Your task to perform on an android device: Add razer blade to the cart on newegg, then select checkout. Image 0: 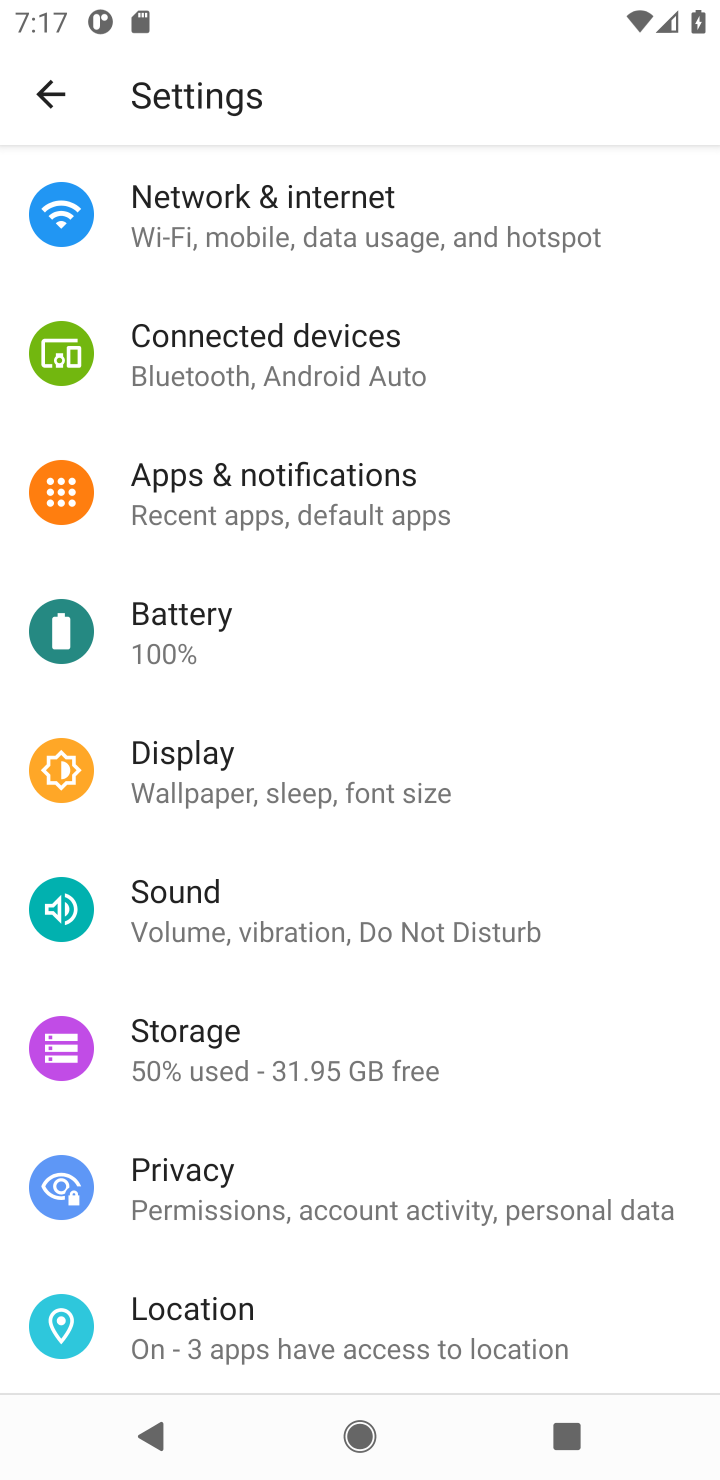
Step 0: press home button
Your task to perform on an android device: Add razer blade to the cart on newegg, then select checkout. Image 1: 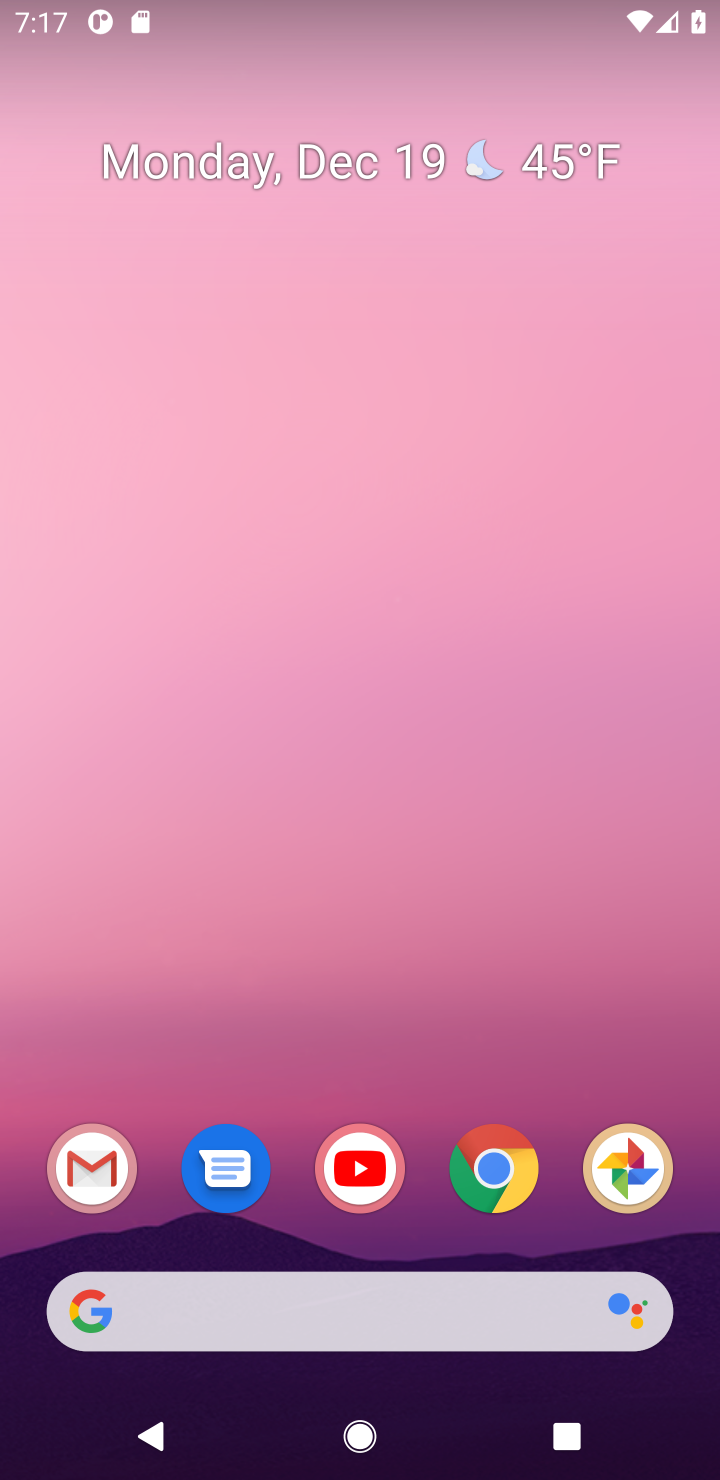
Step 1: click (486, 1181)
Your task to perform on an android device: Add razer blade to the cart on newegg, then select checkout. Image 2: 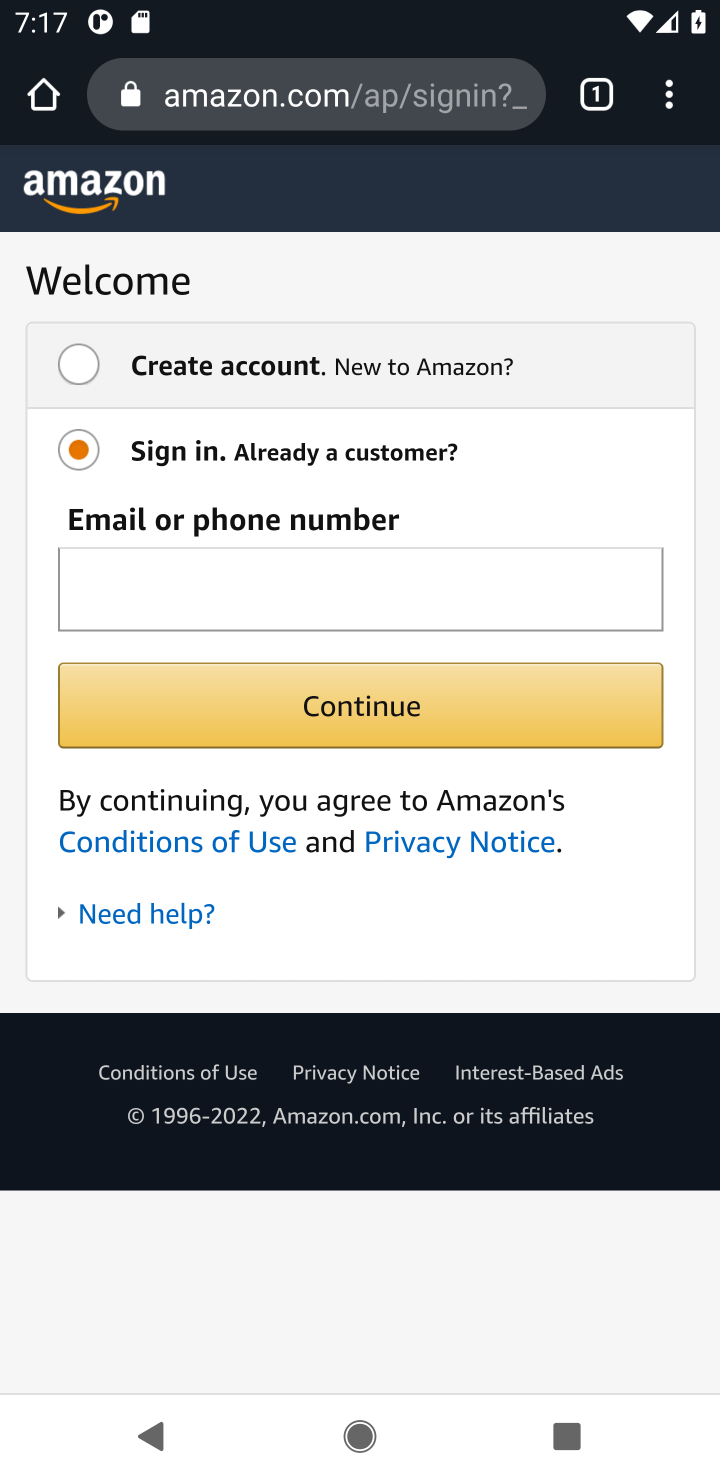
Step 2: click (254, 114)
Your task to perform on an android device: Add razer blade to the cart on newegg, then select checkout. Image 3: 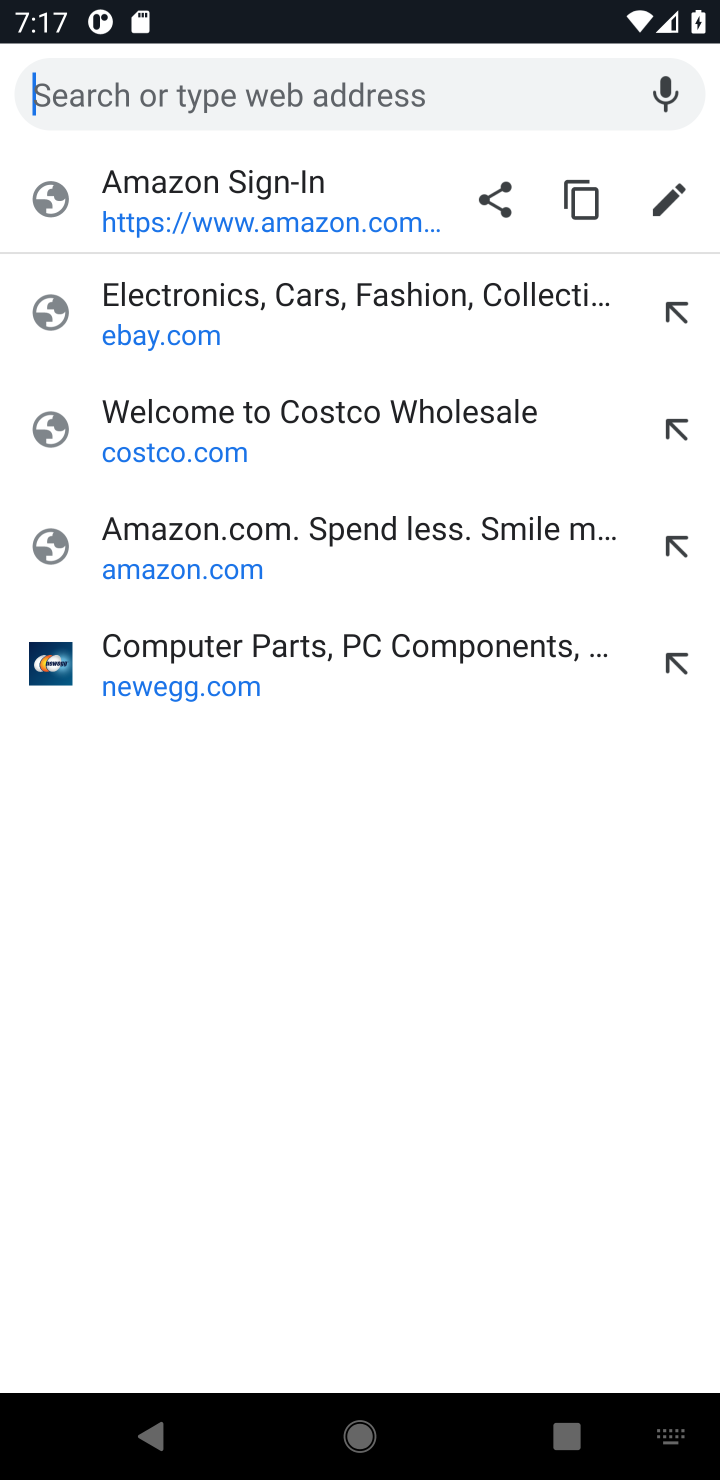
Step 3: click (156, 670)
Your task to perform on an android device: Add razer blade to the cart on newegg, then select checkout. Image 4: 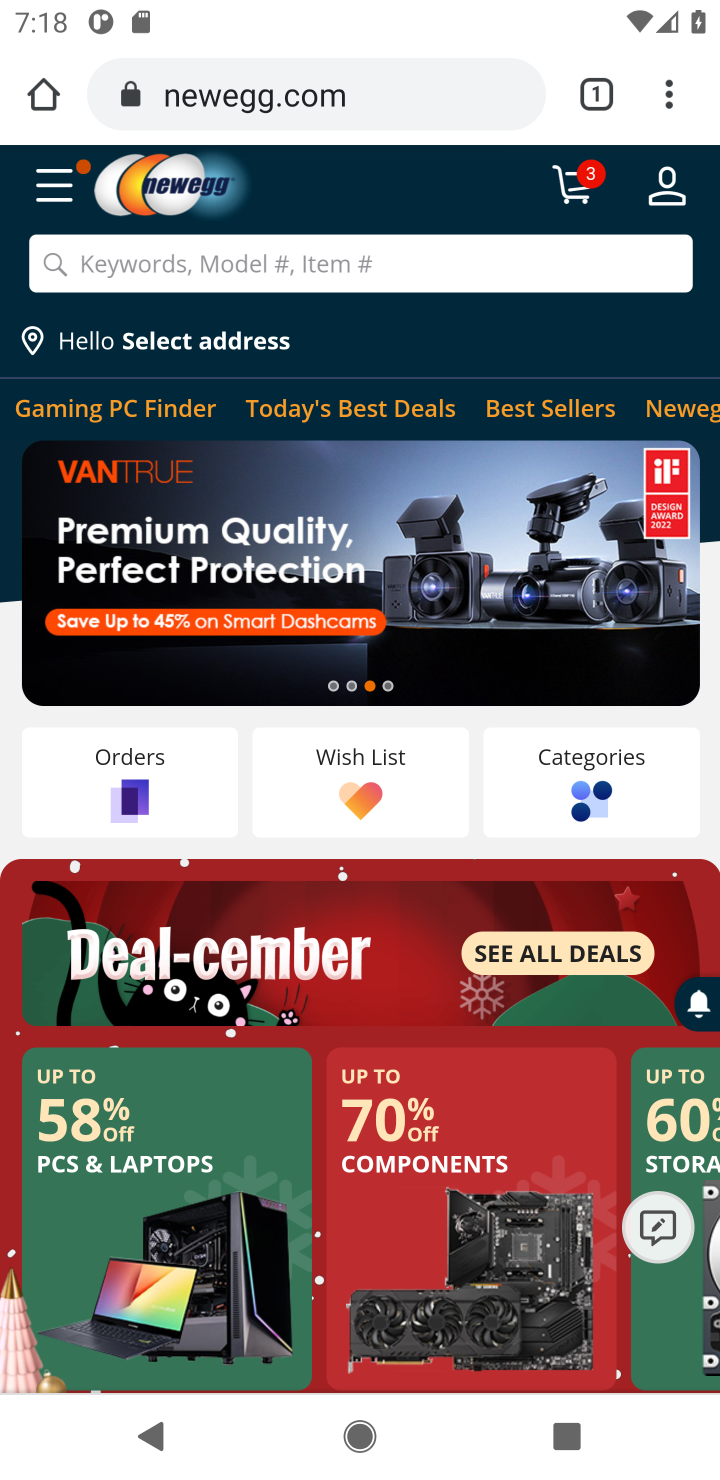
Step 4: click (111, 258)
Your task to perform on an android device: Add razer blade to the cart on newegg, then select checkout. Image 5: 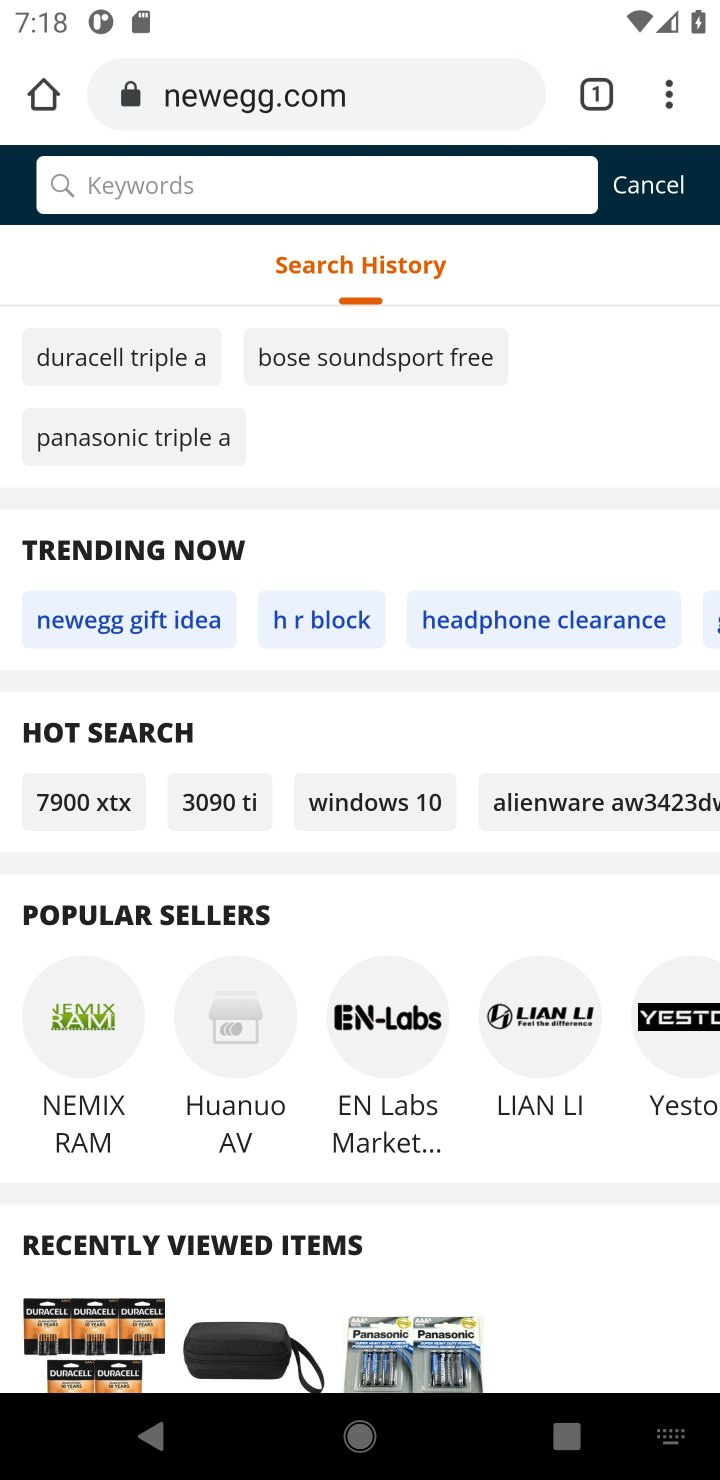
Step 5: type " razer blade"
Your task to perform on an android device: Add razer blade to the cart on newegg, then select checkout. Image 6: 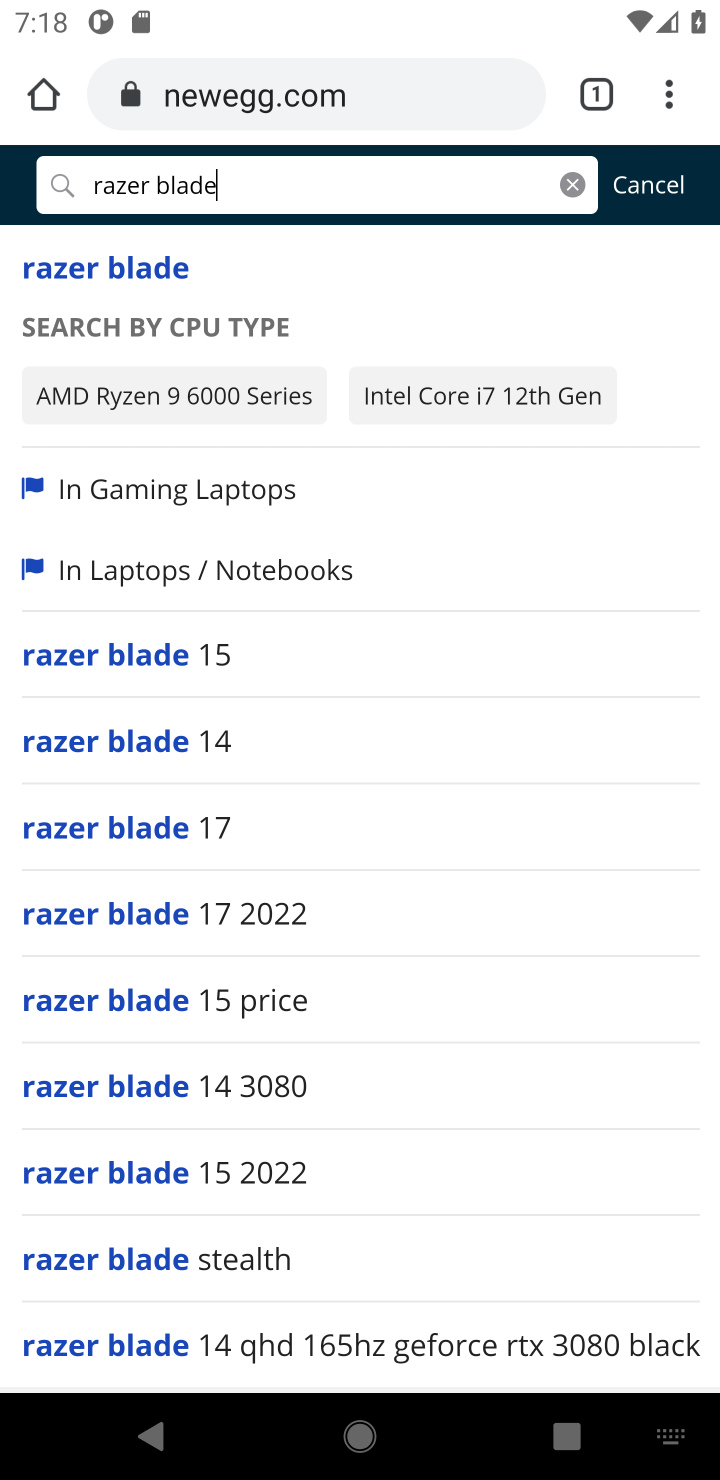
Step 6: click (131, 269)
Your task to perform on an android device: Add razer blade to the cart on newegg, then select checkout. Image 7: 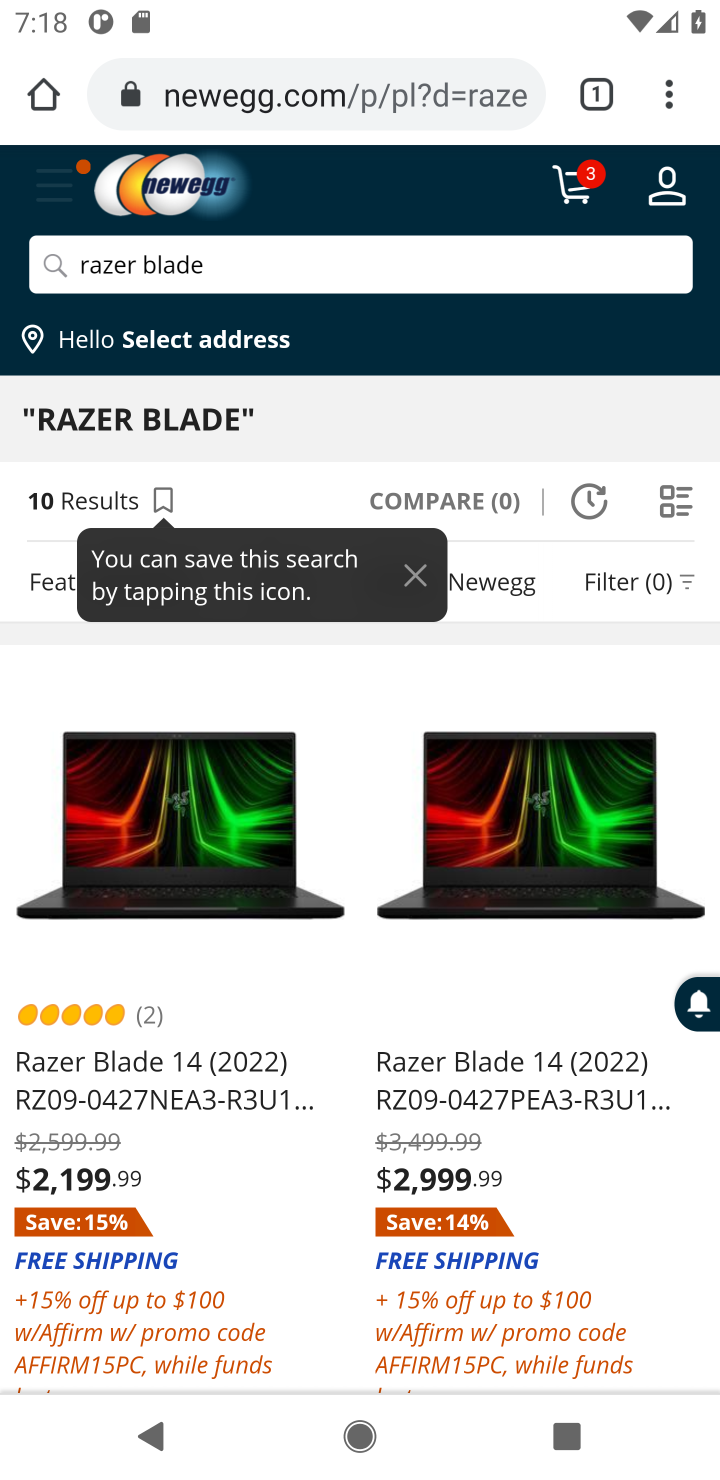
Step 7: drag from (120, 1076) to (197, 750)
Your task to perform on an android device: Add razer blade to the cart on newegg, then select checkout. Image 8: 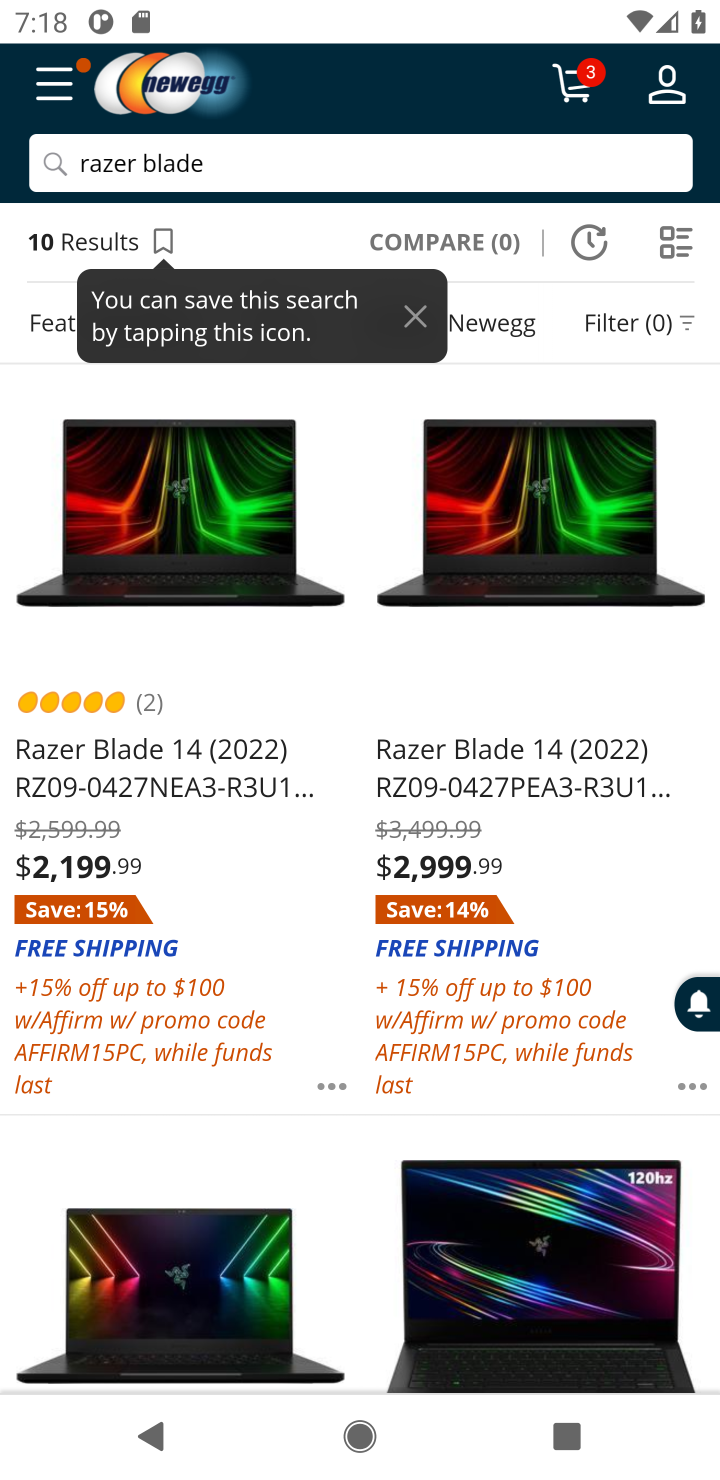
Step 8: click (44, 787)
Your task to perform on an android device: Add razer blade to the cart on newegg, then select checkout. Image 9: 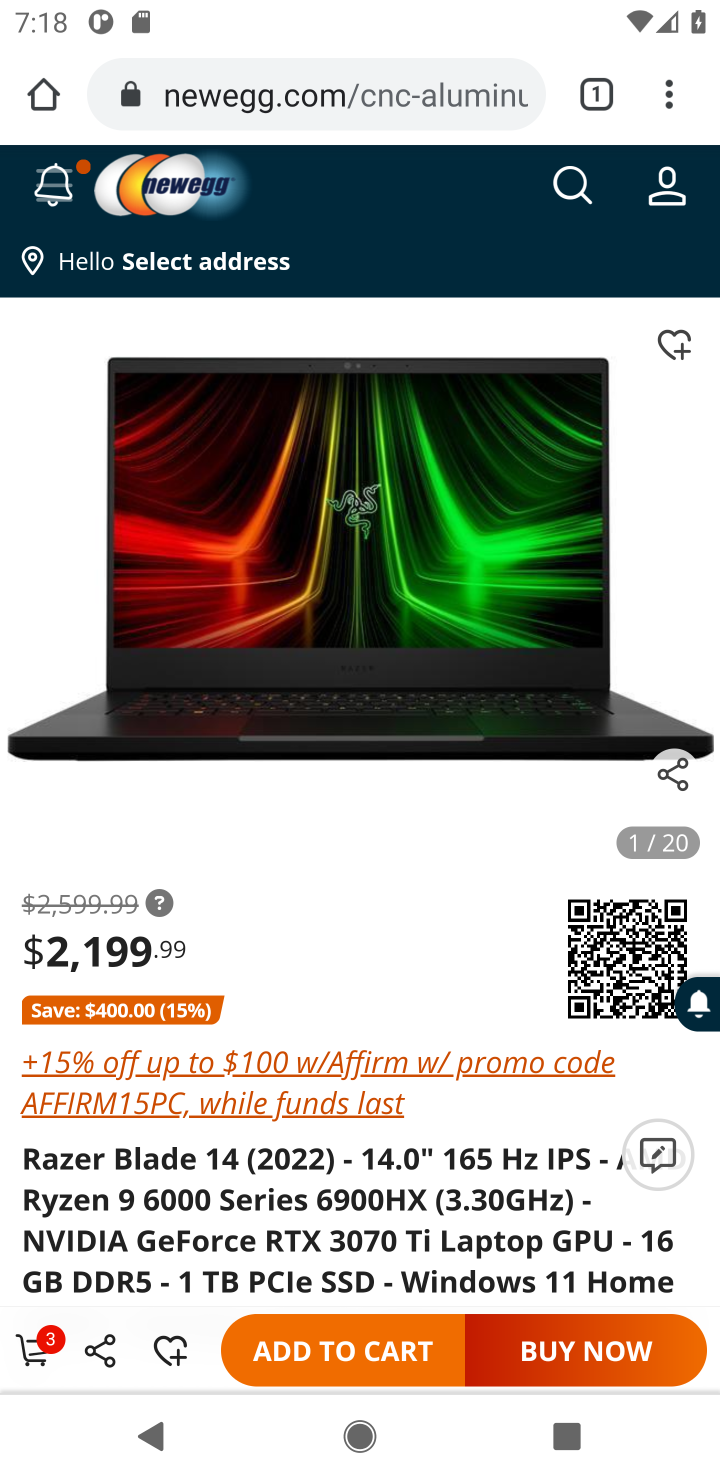
Step 9: click (368, 1361)
Your task to perform on an android device: Add razer blade to the cart on newegg, then select checkout. Image 10: 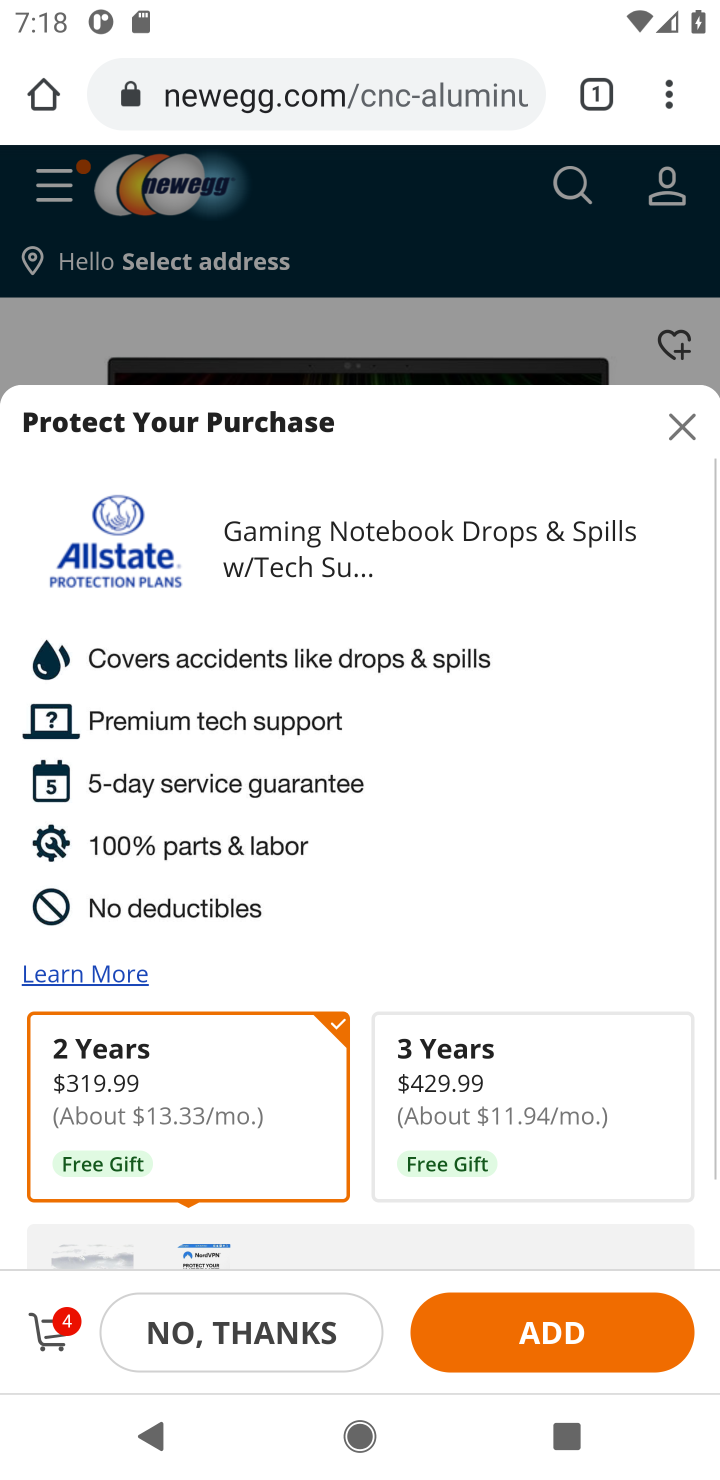
Step 10: click (39, 1340)
Your task to perform on an android device: Add razer blade to the cart on newegg, then select checkout. Image 11: 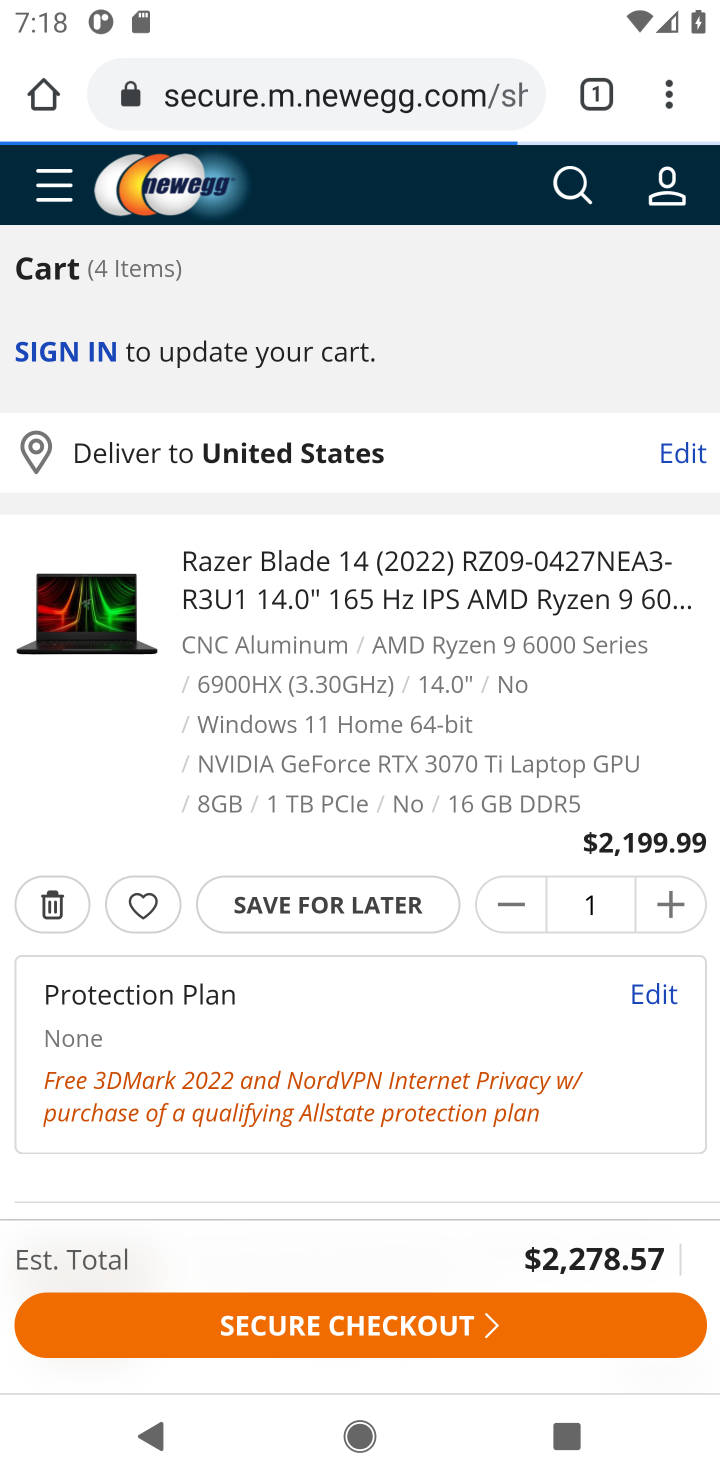
Step 11: click (166, 1330)
Your task to perform on an android device: Add razer blade to the cart on newegg, then select checkout. Image 12: 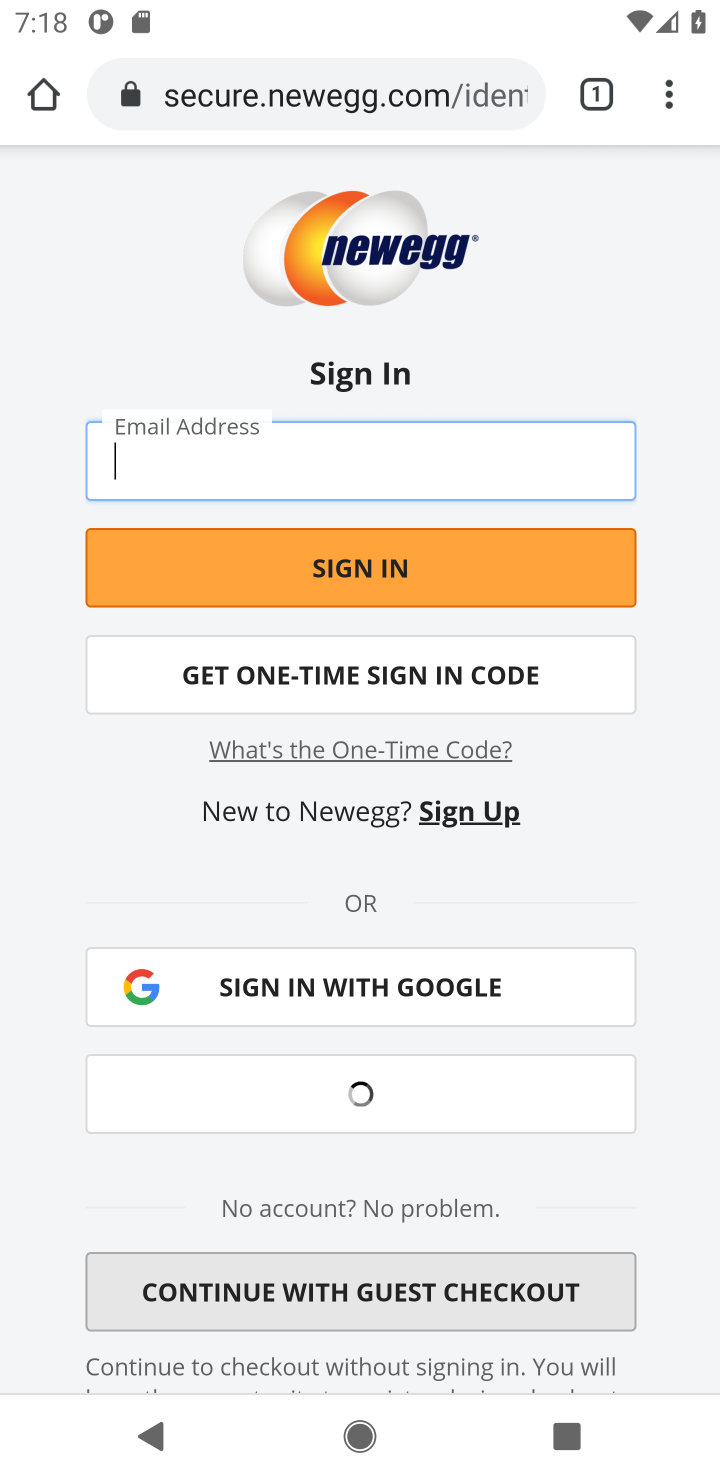
Step 12: task complete